Your task to perform on an android device: delete a single message in the gmail app Image 0: 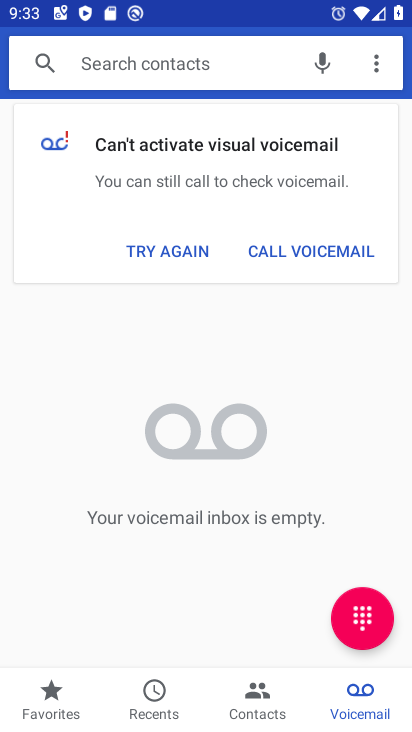
Step 0: press home button
Your task to perform on an android device: delete a single message in the gmail app Image 1: 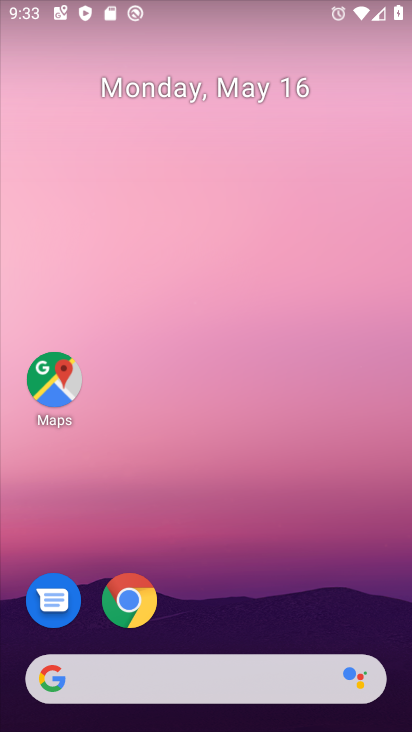
Step 1: drag from (217, 580) to (328, 5)
Your task to perform on an android device: delete a single message in the gmail app Image 2: 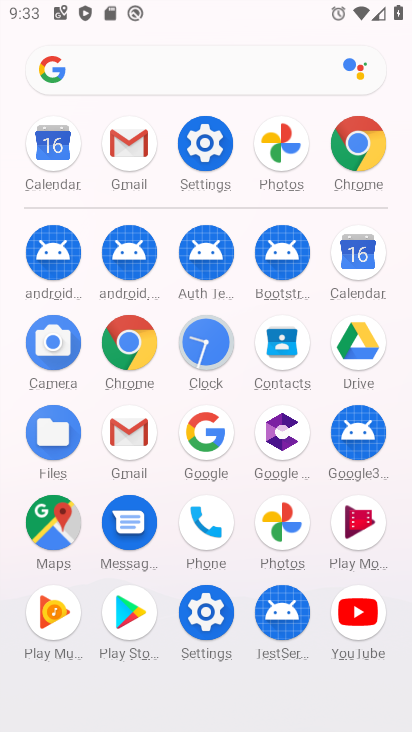
Step 2: click (129, 456)
Your task to perform on an android device: delete a single message in the gmail app Image 3: 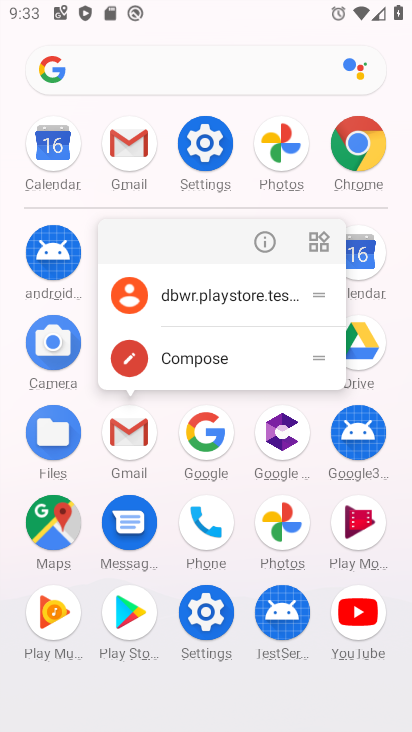
Step 3: click (205, 293)
Your task to perform on an android device: delete a single message in the gmail app Image 4: 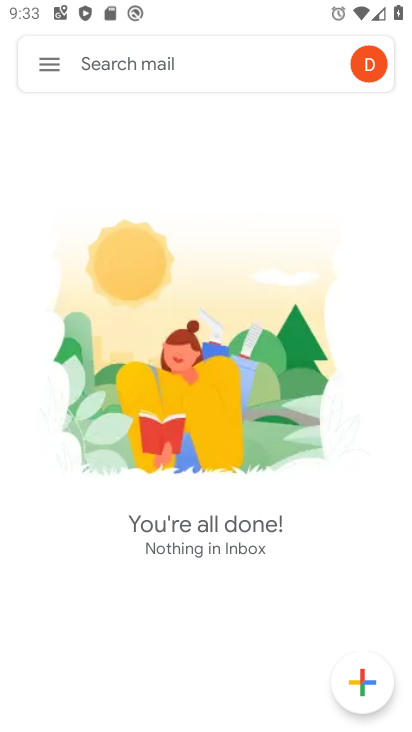
Step 4: click (46, 67)
Your task to perform on an android device: delete a single message in the gmail app Image 5: 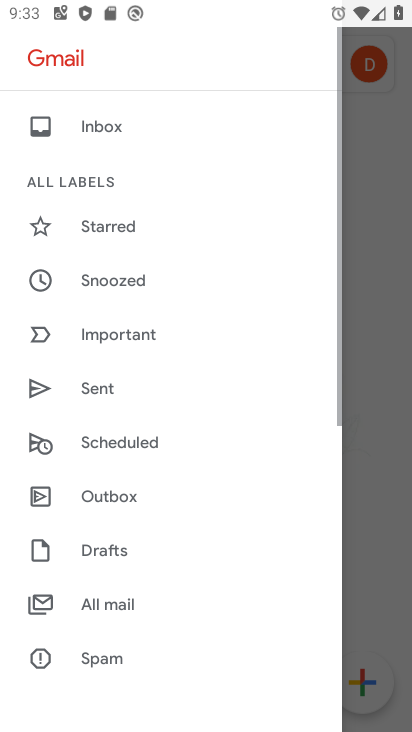
Step 5: drag from (144, 620) to (241, 67)
Your task to perform on an android device: delete a single message in the gmail app Image 6: 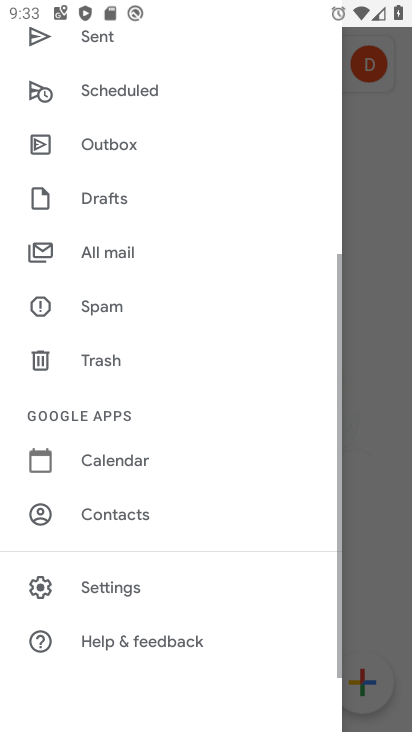
Step 6: click (115, 586)
Your task to perform on an android device: delete a single message in the gmail app Image 7: 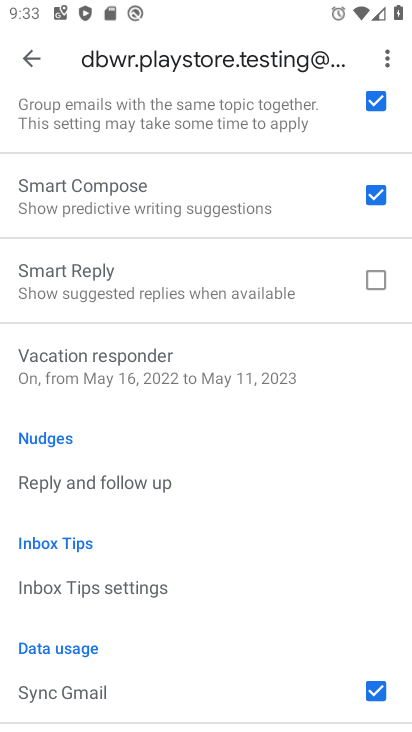
Step 7: drag from (198, 589) to (193, 376)
Your task to perform on an android device: delete a single message in the gmail app Image 8: 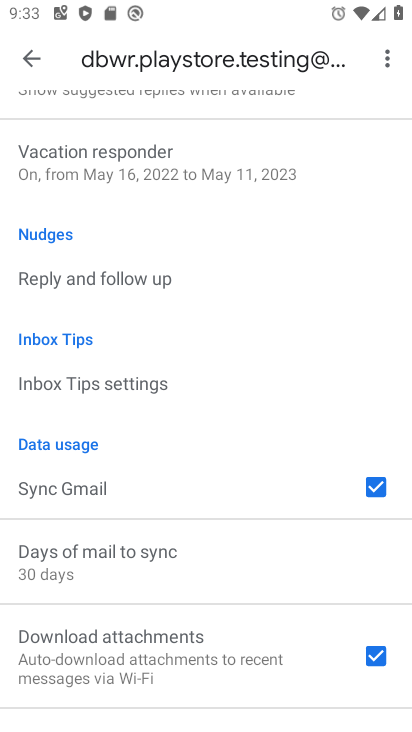
Step 8: drag from (223, 184) to (319, 717)
Your task to perform on an android device: delete a single message in the gmail app Image 9: 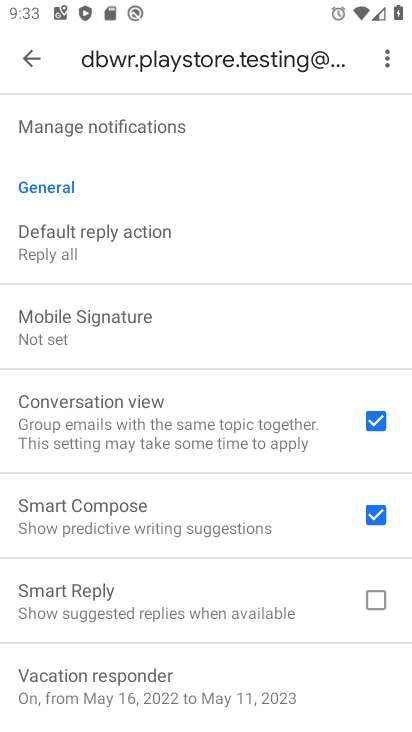
Step 9: click (18, 54)
Your task to perform on an android device: delete a single message in the gmail app Image 10: 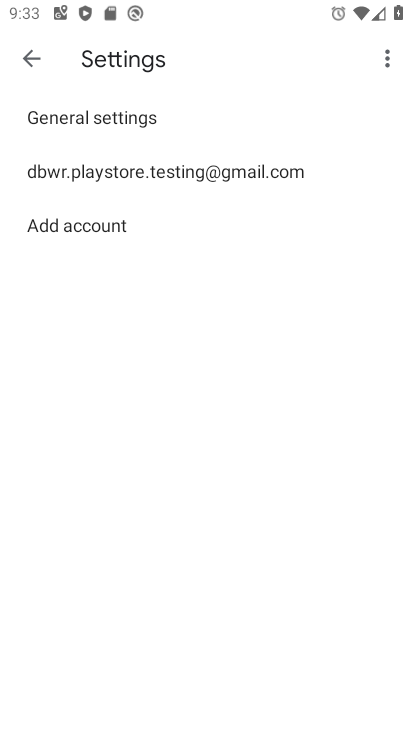
Step 10: click (33, 55)
Your task to perform on an android device: delete a single message in the gmail app Image 11: 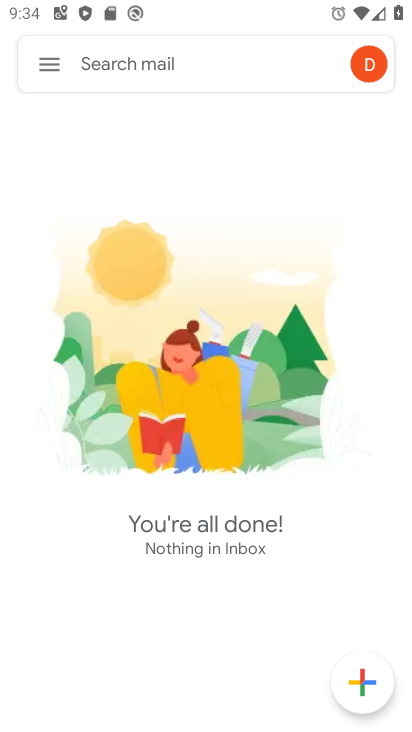
Step 11: task complete